Your task to perform on an android device: turn off location history Image 0: 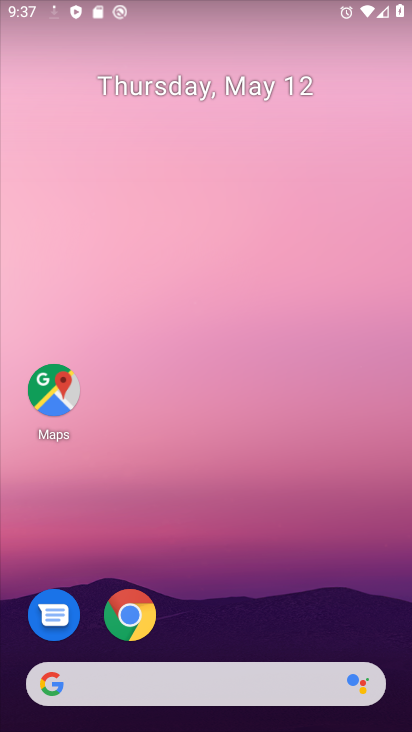
Step 0: click (316, 154)
Your task to perform on an android device: turn off location history Image 1: 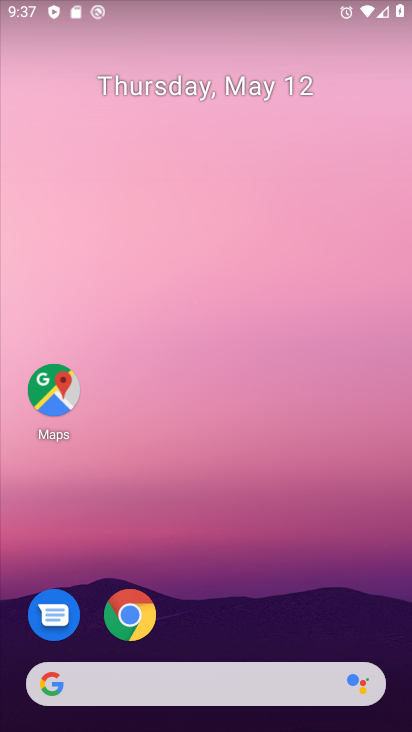
Step 1: drag from (285, 574) to (326, 80)
Your task to perform on an android device: turn off location history Image 2: 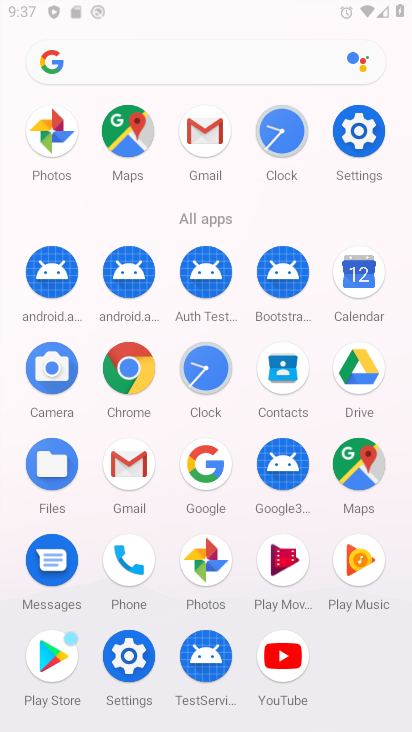
Step 2: click (367, 126)
Your task to perform on an android device: turn off location history Image 3: 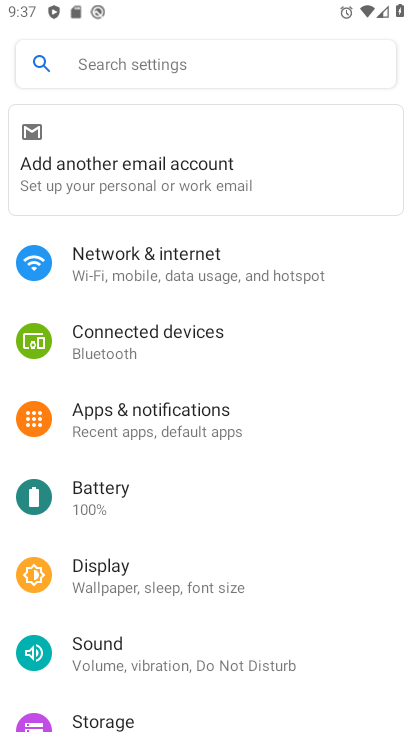
Step 3: drag from (202, 588) to (207, 222)
Your task to perform on an android device: turn off location history Image 4: 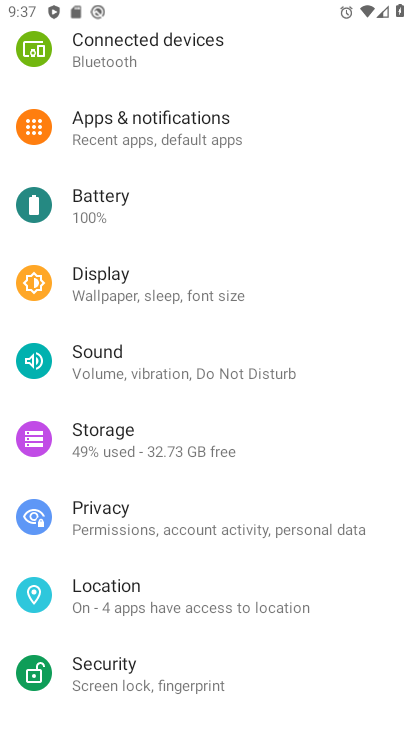
Step 4: click (153, 586)
Your task to perform on an android device: turn off location history Image 5: 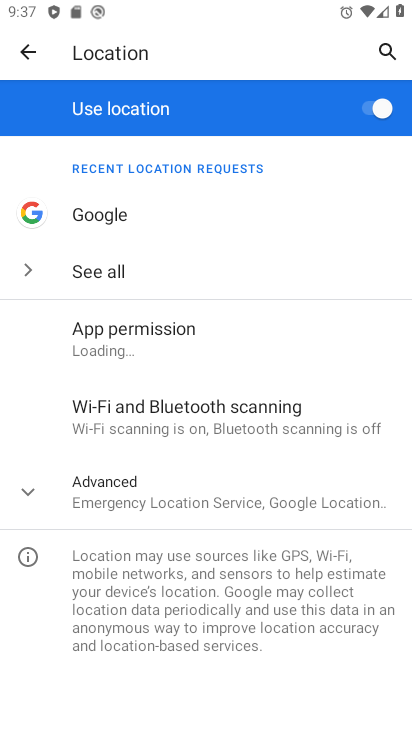
Step 5: click (141, 494)
Your task to perform on an android device: turn off location history Image 6: 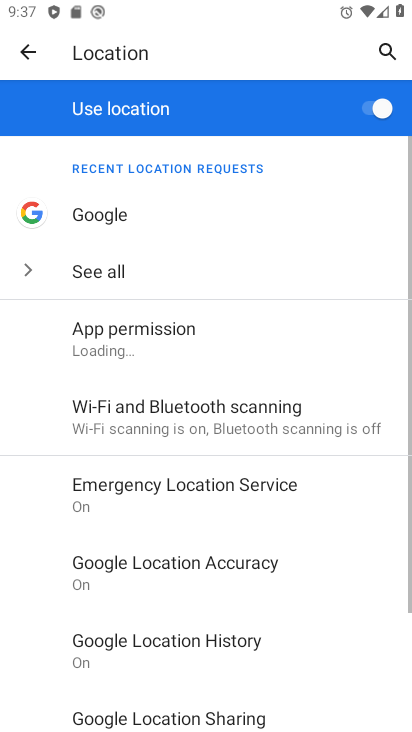
Step 6: drag from (247, 623) to (367, 202)
Your task to perform on an android device: turn off location history Image 7: 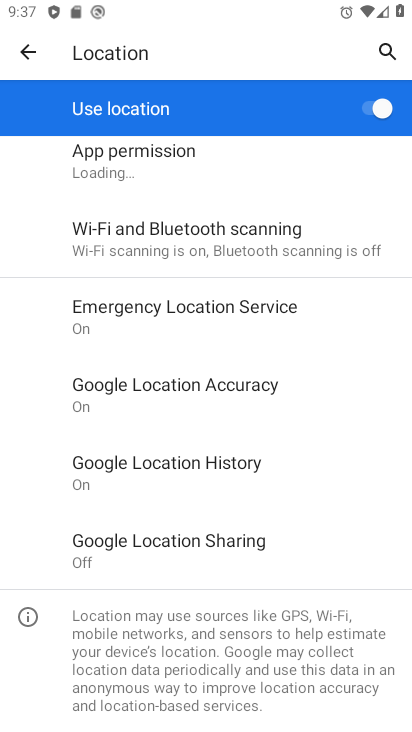
Step 7: click (210, 390)
Your task to perform on an android device: turn off location history Image 8: 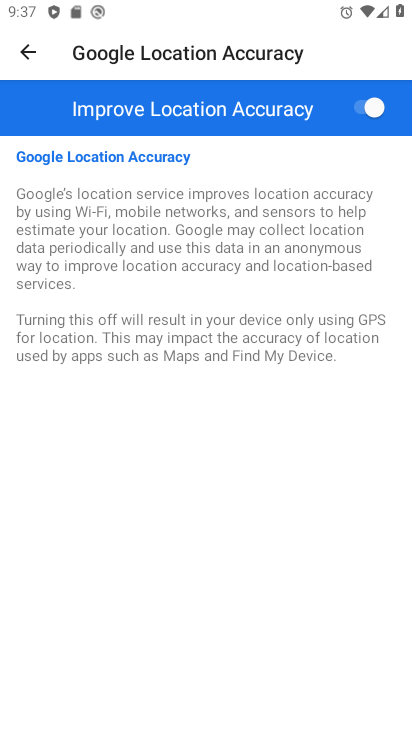
Step 8: press back button
Your task to perform on an android device: turn off location history Image 9: 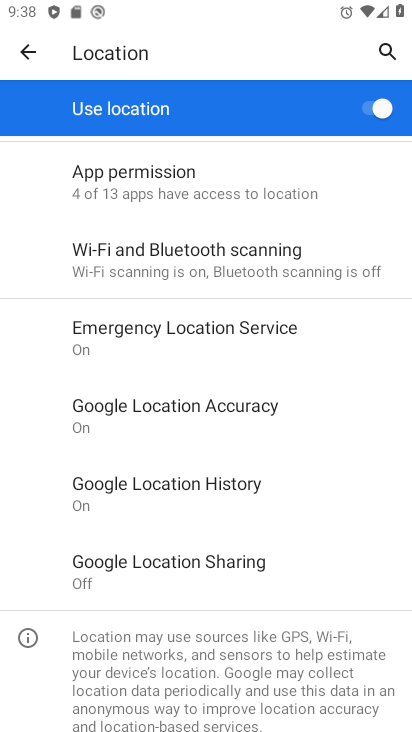
Step 9: click (206, 485)
Your task to perform on an android device: turn off location history Image 10: 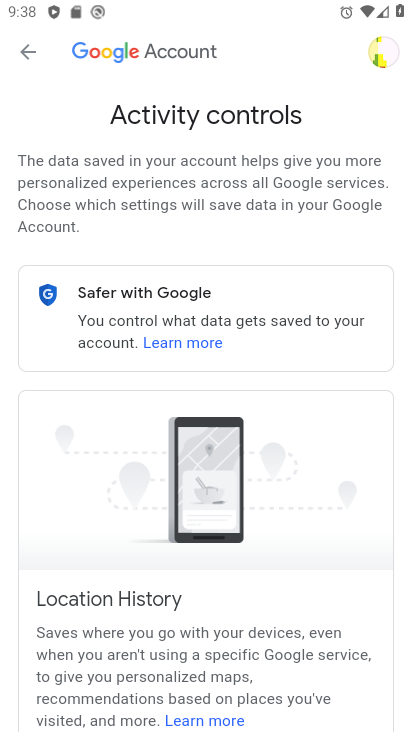
Step 10: task complete